Your task to perform on an android device: change alarm snooze length Image 0: 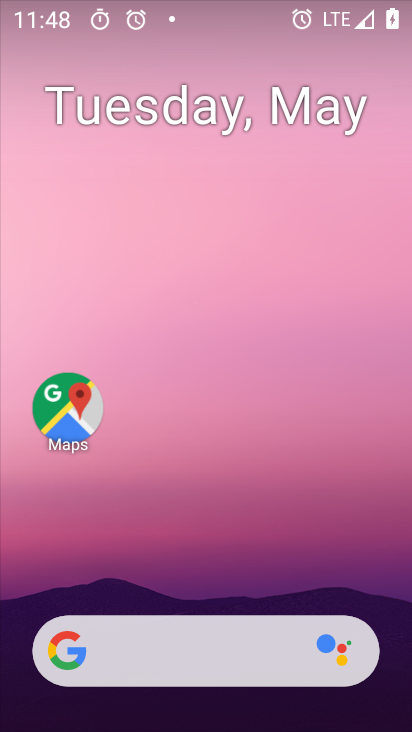
Step 0: drag from (198, 641) to (215, 175)
Your task to perform on an android device: change alarm snooze length Image 1: 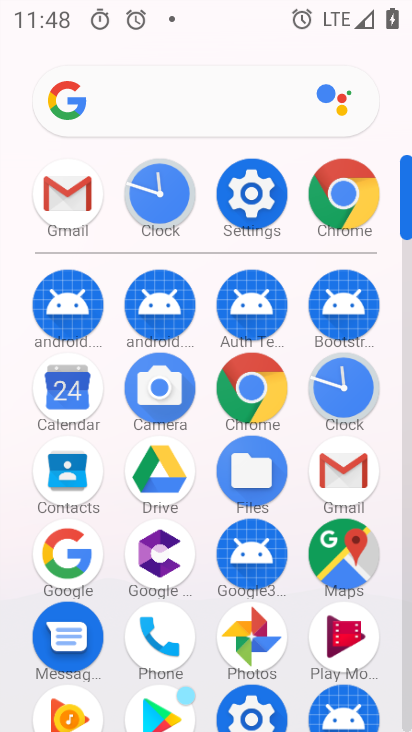
Step 1: click (341, 381)
Your task to perform on an android device: change alarm snooze length Image 2: 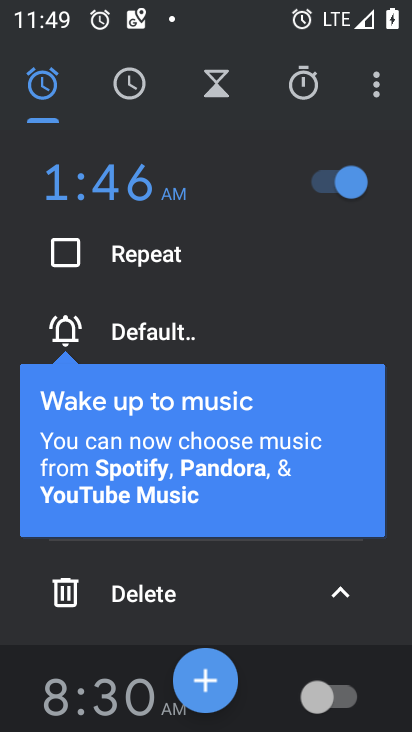
Step 2: click (384, 95)
Your task to perform on an android device: change alarm snooze length Image 3: 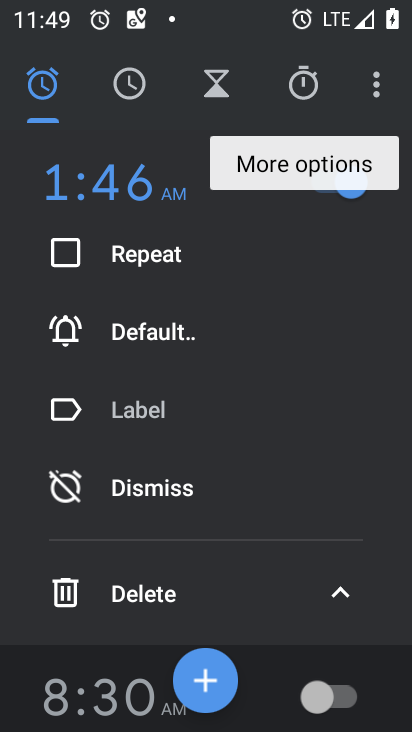
Step 3: click (384, 95)
Your task to perform on an android device: change alarm snooze length Image 4: 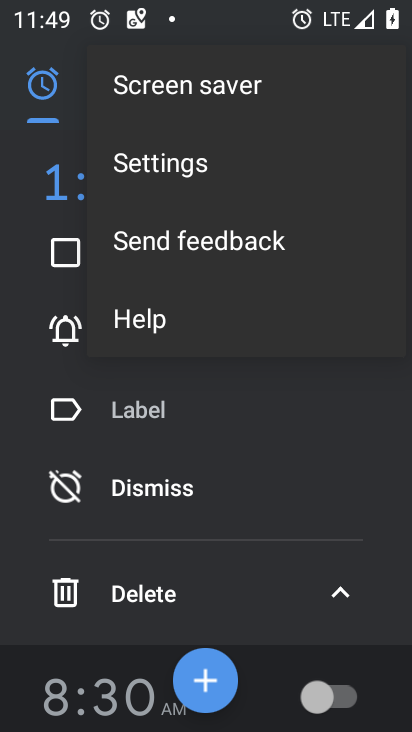
Step 4: click (195, 162)
Your task to perform on an android device: change alarm snooze length Image 5: 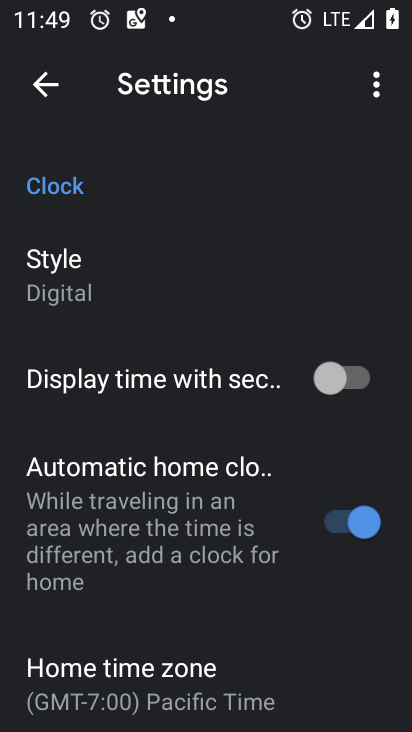
Step 5: drag from (223, 601) to (218, 19)
Your task to perform on an android device: change alarm snooze length Image 6: 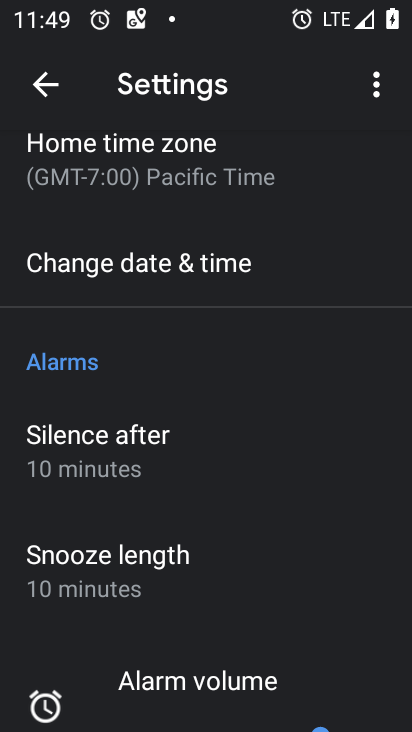
Step 6: click (192, 568)
Your task to perform on an android device: change alarm snooze length Image 7: 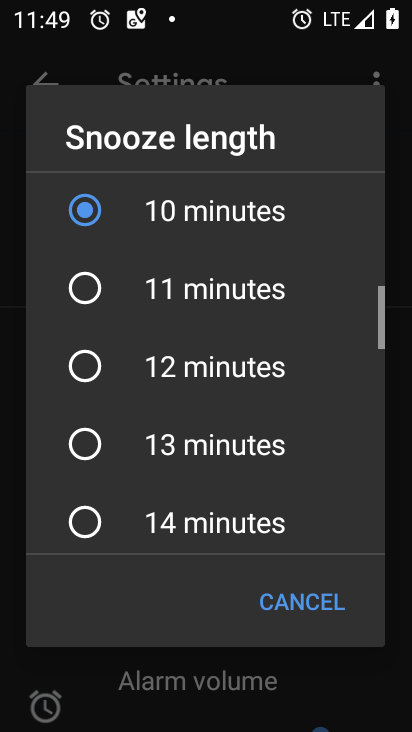
Step 7: click (129, 285)
Your task to perform on an android device: change alarm snooze length Image 8: 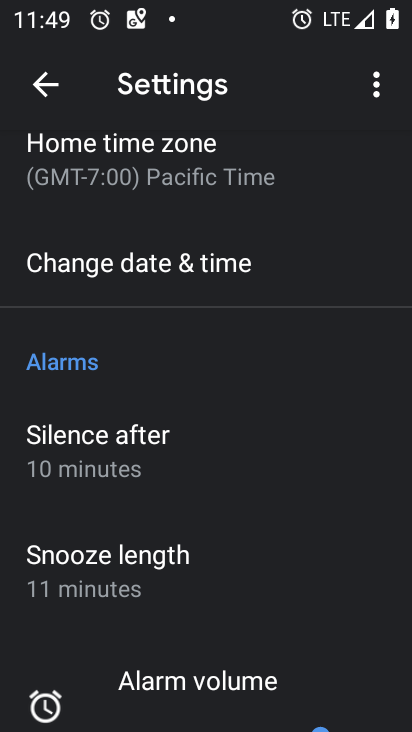
Step 8: task complete